Your task to perform on an android device: Check the weather Image 0: 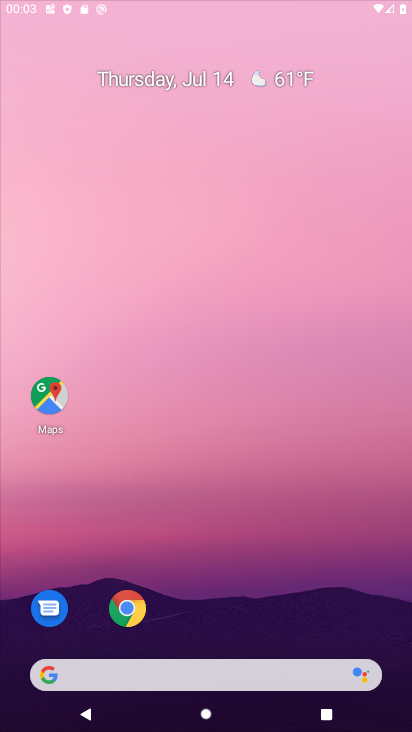
Step 0: click (256, 194)
Your task to perform on an android device: Check the weather Image 1: 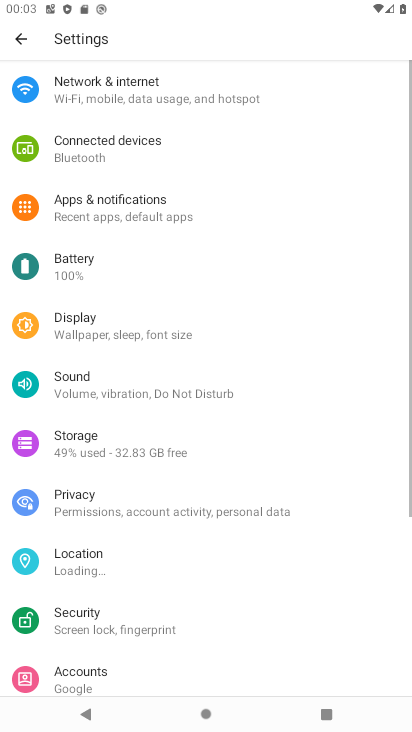
Step 1: drag from (222, 612) to (266, 272)
Your task to perform on an android device: Check the weather Image 2: 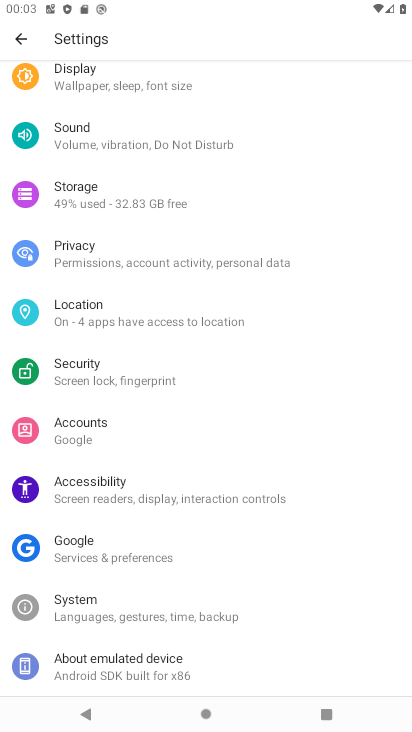
Step 2: press home button
Your task to perform on an android device: Check the weather Image 3: 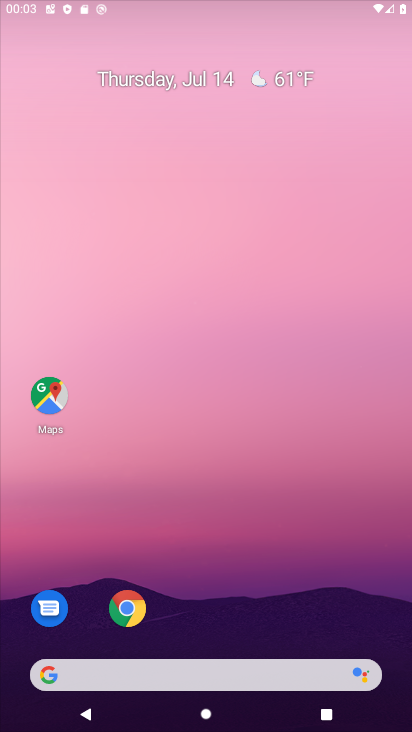
Step 3: drag from (191, 650) to (193, 68)
Your task to perform on an android device: Check the weather Image 4: 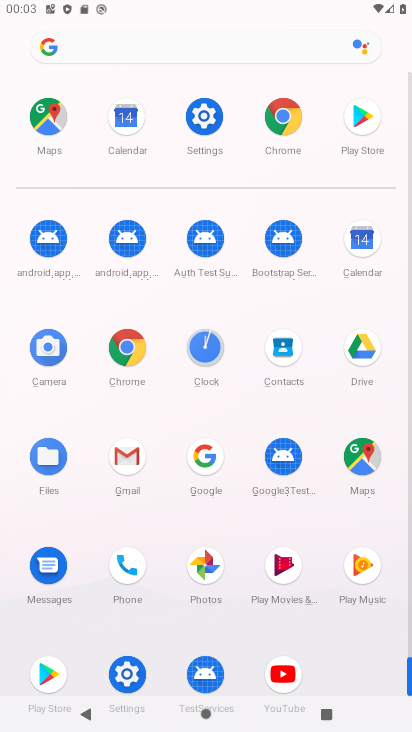
Step 4: click (121, 38)
Your task to perform on an android device: Check the weather Image 5: 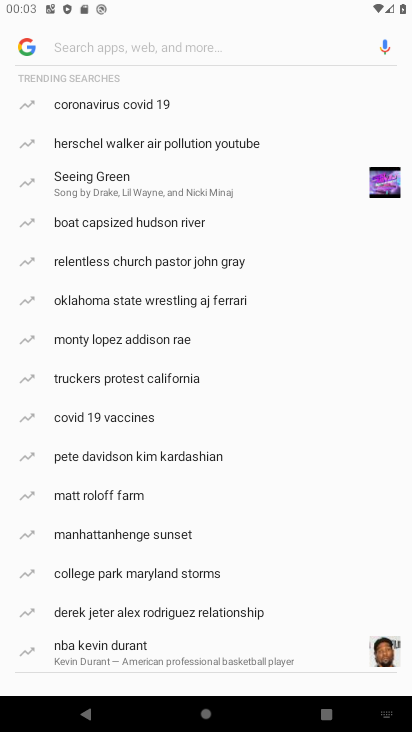
Step 5: type "weather"
Your task to perform on an android device: Check the weather Image 6: 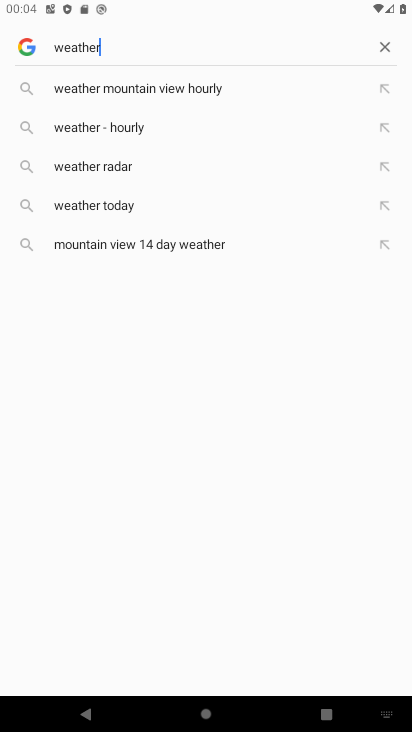
Step 6: click (157, 193)
Your task to perform on an android device: Check the weather Image 7: 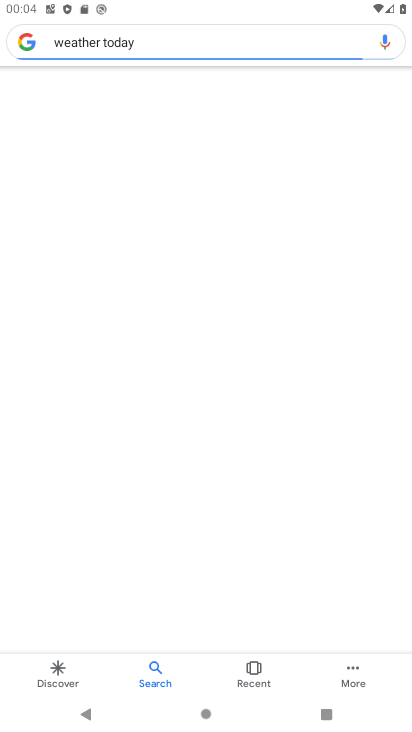
Step 7: drag from (196, 371) to (227, 221)
Your task to perform on an android device: Check the weather Image 8: 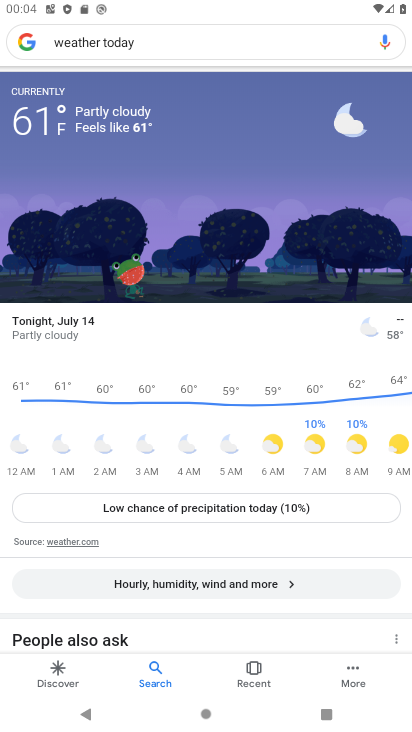
Step 8: drag from (153, 447) to (229, 190)
Your task to perform on an android device: Check the weather Image 9: 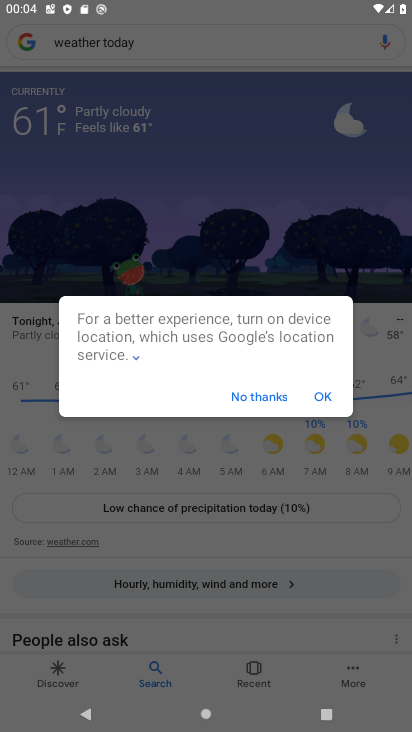
Step 9: click (313, 396)
Your task to perform on an android device: Check the weather Image 10: 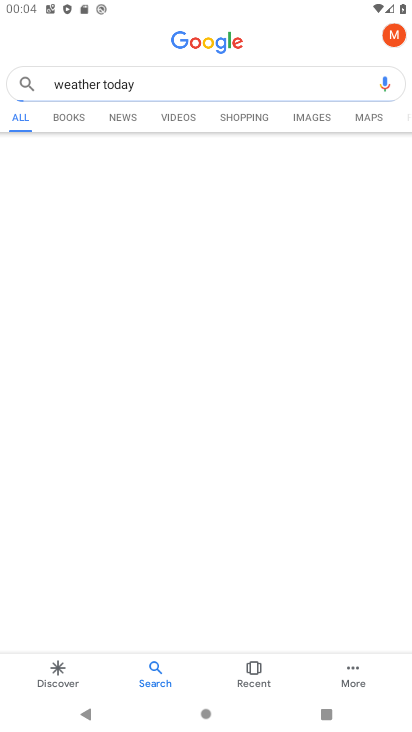
Step 10: task complete